Your task to perform on an android device: Go to notification settings Image 0: 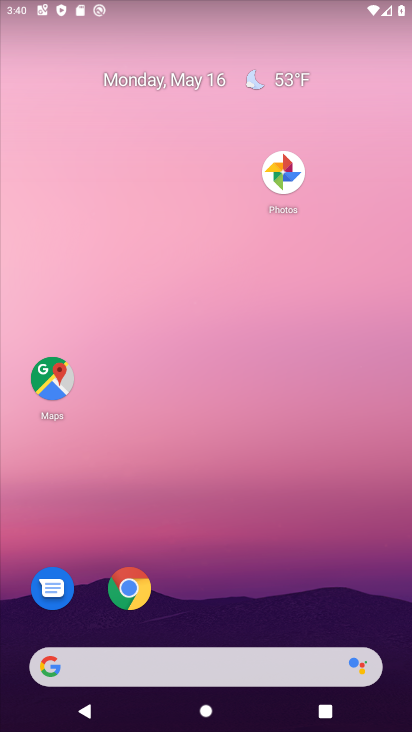
Step 0: drag from (208, 614) to (410, 107)
Your task to perform on an android device: Go to notification settings Image 1: 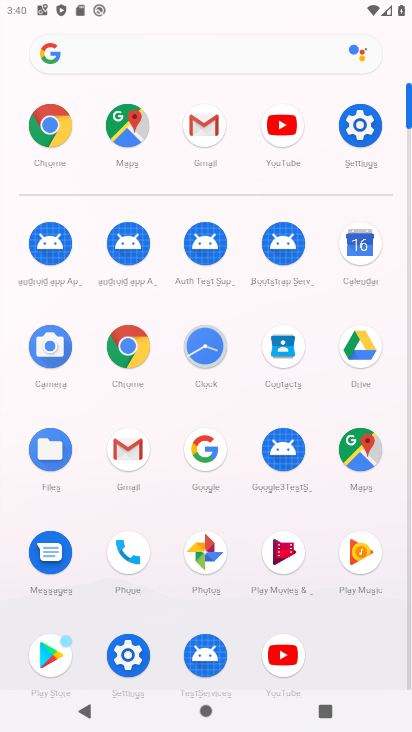
Step 1: click (364, 128)
Your task to perform on an android device: Go to notification settings Image 2: 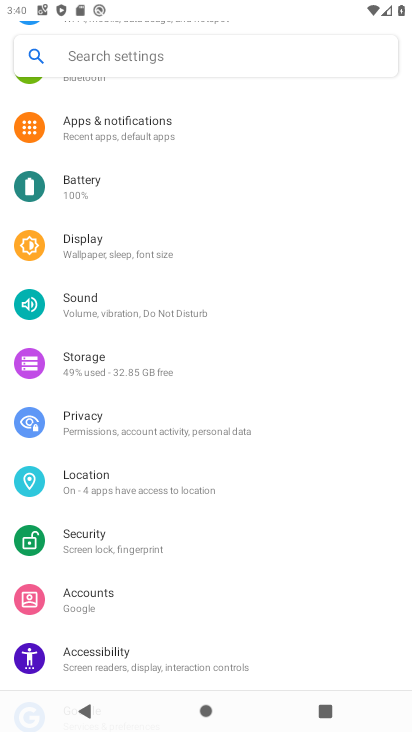
Step 2: click (99, 120)
Your task to perform on an android device: Go to notification settings Image 3: 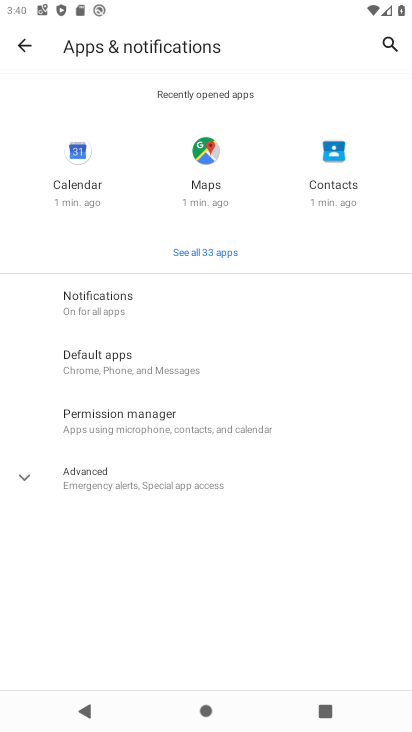
Step 3: task complete